Your task to perform on an android device: Open Maps and search for coffee Image 0: 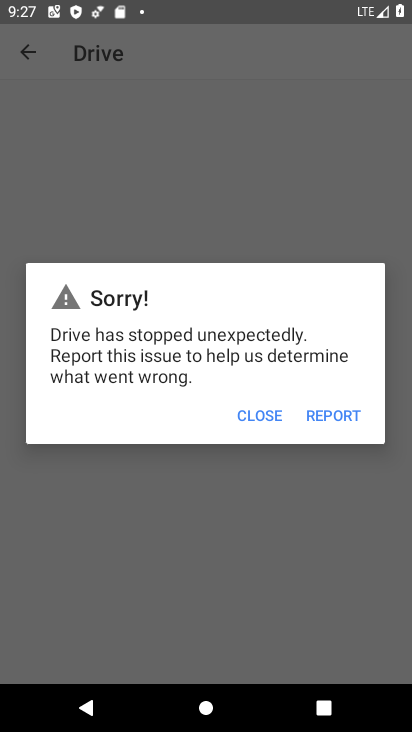
Step 0: press back button
Your task to perform on an android device: Open Maps and search for coffee Image 1: 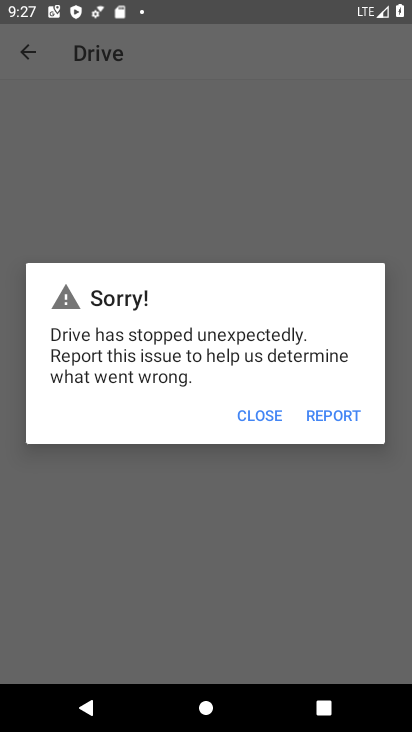
Step 1: press back button
Your task to perform on an android device: Open Maps and search for coffee Image 2: 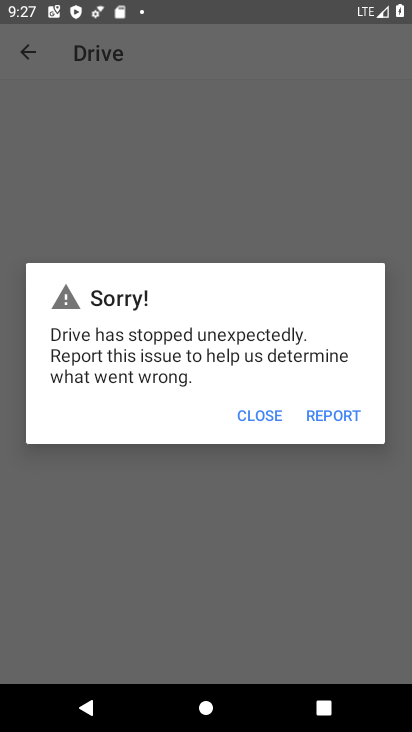
Step 2: press home button
Your task to perform on an android device: Open Maps and search for coffee Image 3: 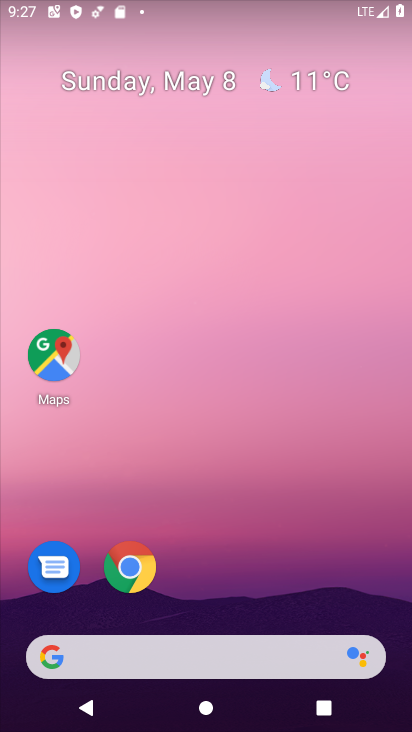
Step 3: click (60, 351)
Your task to perform on an android device: Open Maps and search for coffee Image 4: 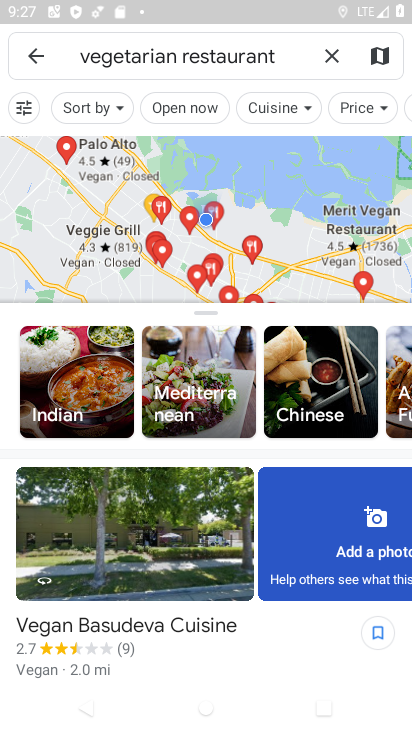
Step 4: click (329, 51)
Your task to perform on an android device: Open Maps and search for coffee Image 5: 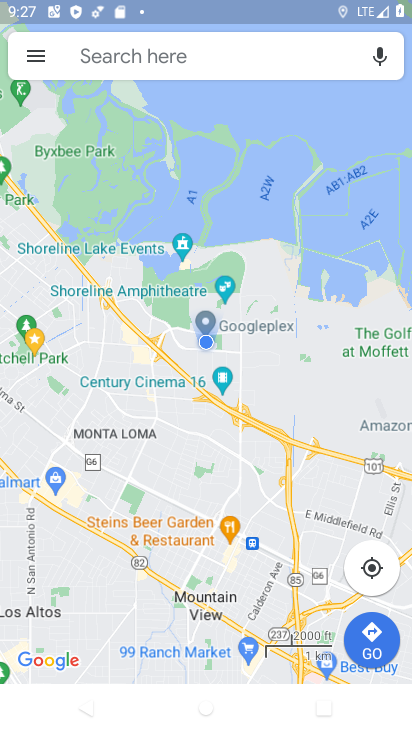
Step 5: click (161, 57)
Your task to perform on an android device: Open Maps and search for coffee Image 6: 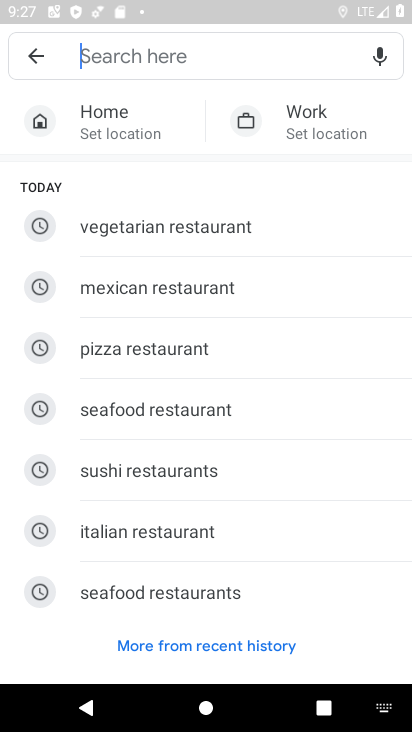
Step 6: drag from (182, 535) to (272, 203)
Your task to perform on an android device: Open Maps and search for coffee Image 7: 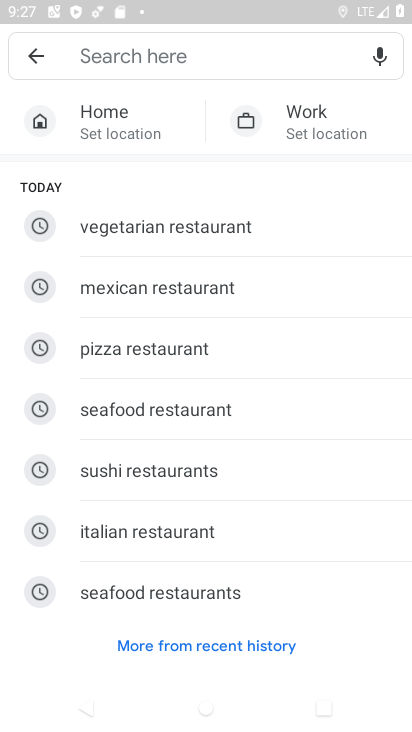
Step 7: click (114, 53)
Your task to perform on an android device: Open Maps and search for coffee Image 8: 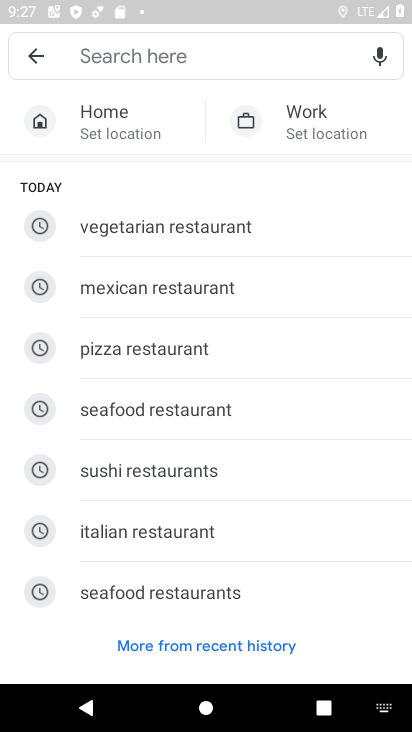
Step 8: type "coffee"
Your task to perform on an android device: Open Maps and search for coffee Image 9: 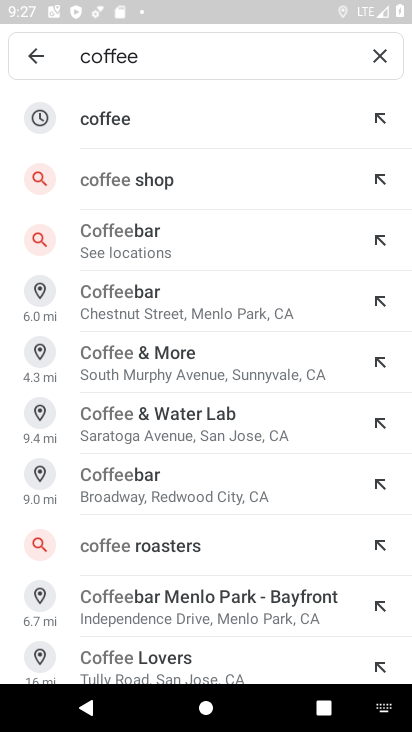
Step 9: click (138, 124)
Your task to perform on an android device: Open Maps and search for coffee Image 10: 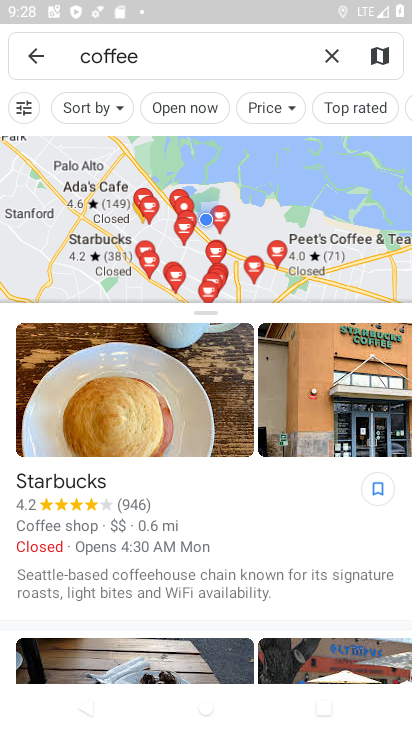
Step 10: task complete